Your task to perform on an android device: turn on wifi Image 0: 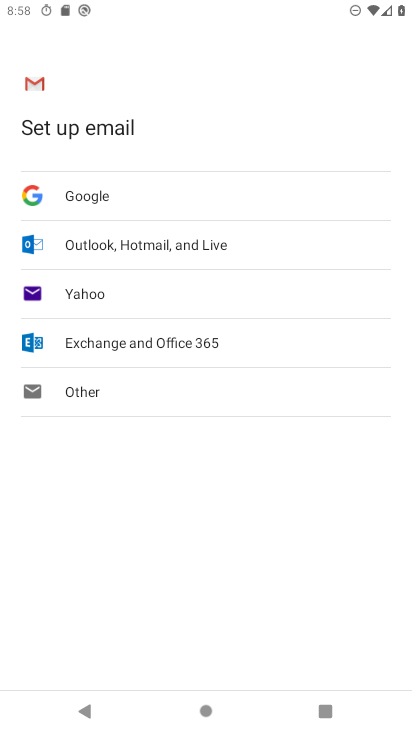
Step 0: press home button
Your task to perform on an android device: turn on wifi Image 1: 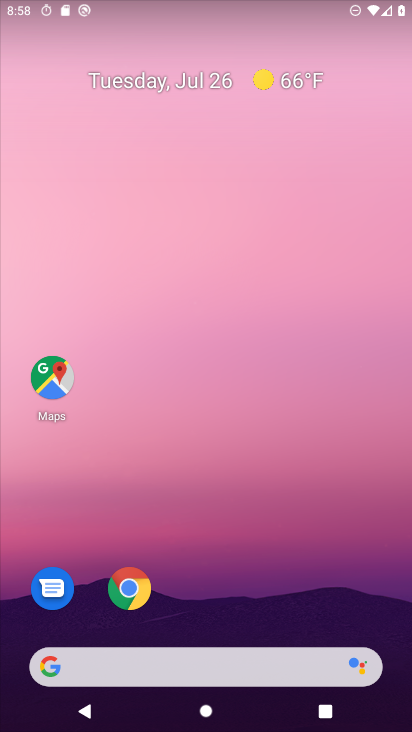
Step 1: drag from (222, 706) to (199, 187)
Your task to perform on an android device: turn on wifi Image 2: 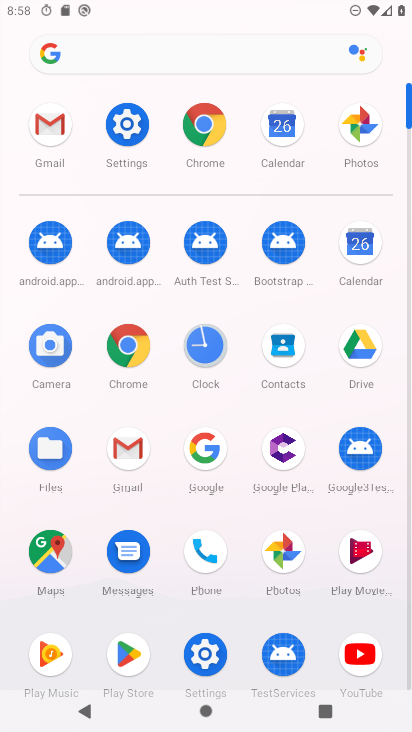
Step 2: click (130, 129)
Your task to perform on an android device: turn on wifi Image 3: 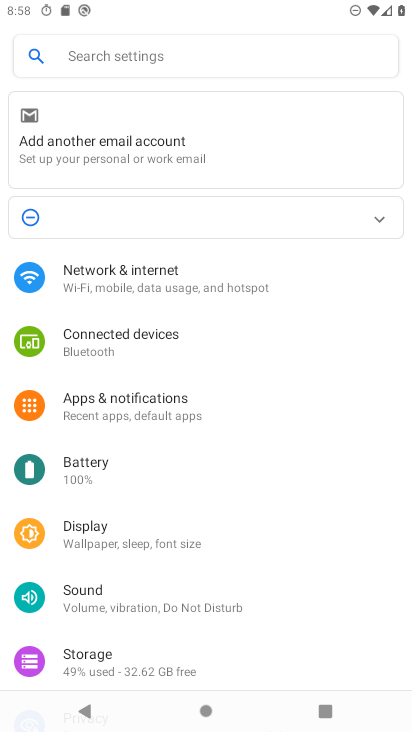
Step 3: click (99, 287)
Your task to perform on an android device: turn on wifi Image 4: 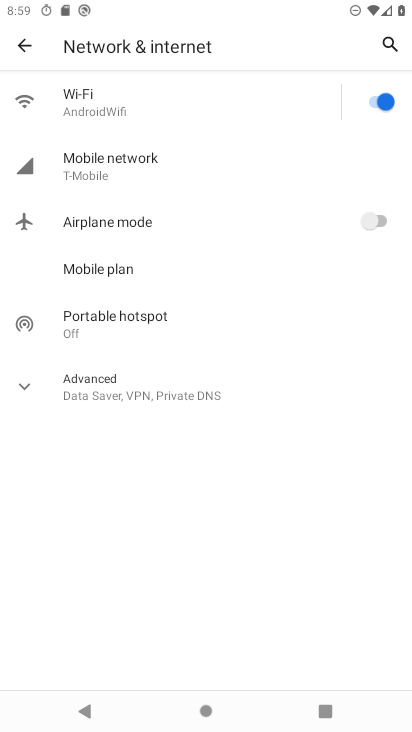
Step 4: task complete